Your task to perform on an android device: all mails in gmail Image 0: 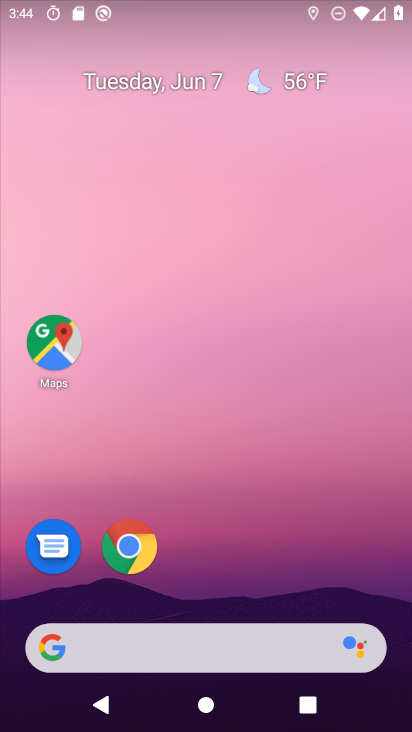
Step 0: drag from (248, 533) to (211, 6)
Your task to perform on an android device: all mails in gmail Image 1: 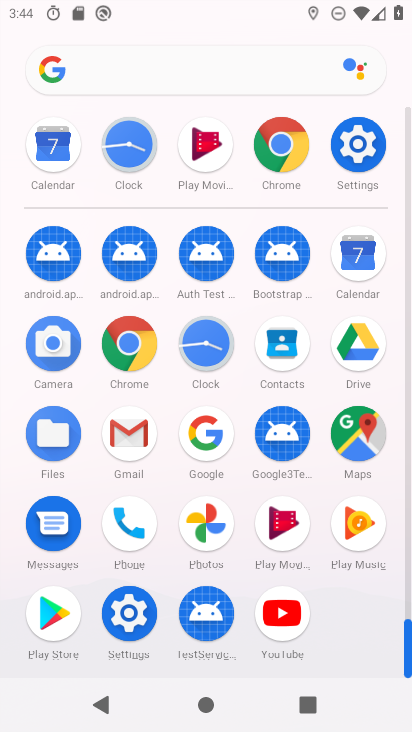
Step 1: click (126, 428)
Your task to perform on an android device: all mails in gmail Image 2: 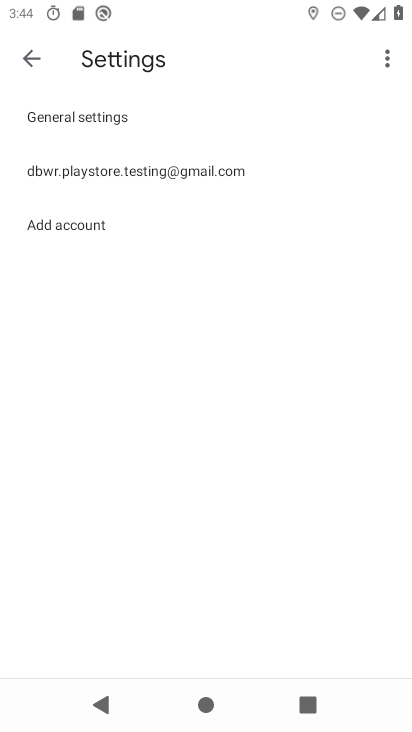
Step 2: click (41, 60)
Your task to perform on an android device: all mails in gmail Image 3: 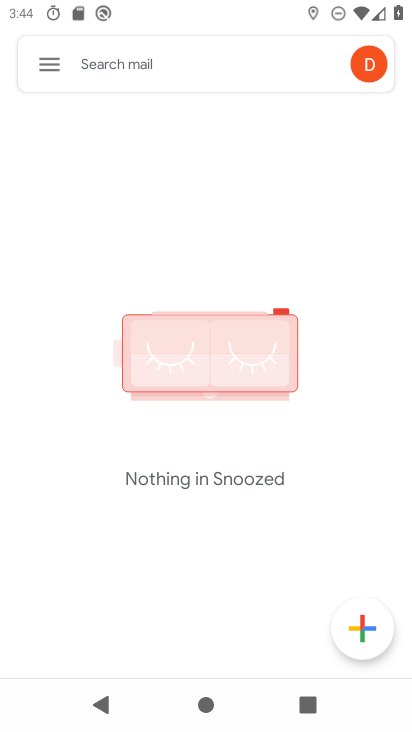
Step 3: click (49, 68)
Your task to perform on an android device: all mails in gmail Image 4: 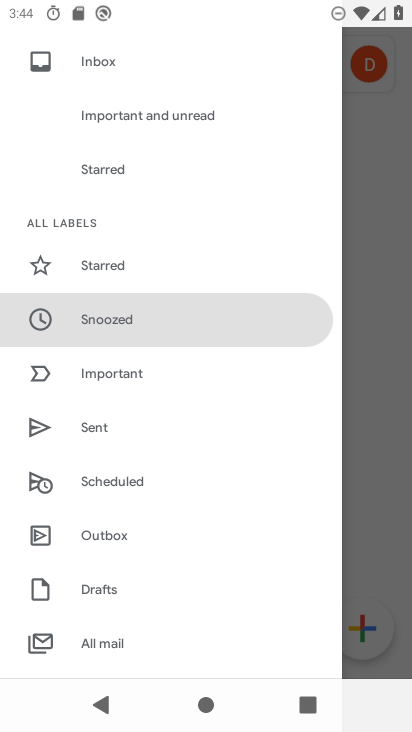
Step 4: click (131, 633)
Your task to perform on an android device: all mails in gmail Image 5: 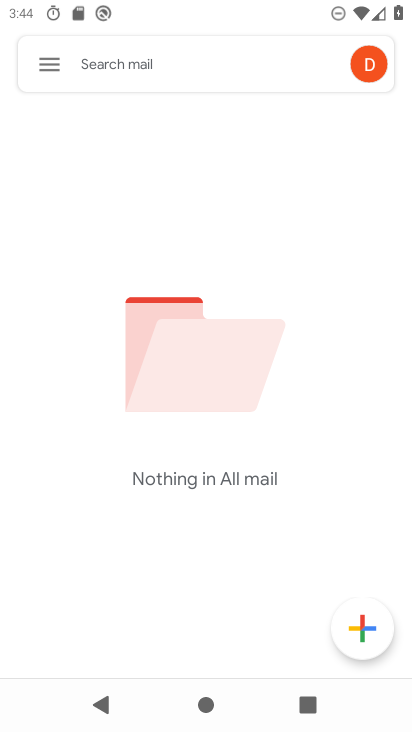
Step 5: task complete